Your task to perform on an android device: change timer sound Image 0: 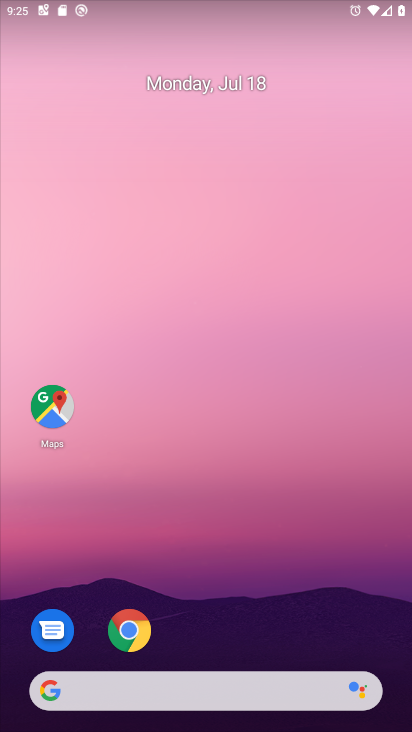
Step 0: drag from (204, 619) to (188, 183)
Your task to perform on an android device: change timer sound Image 1: 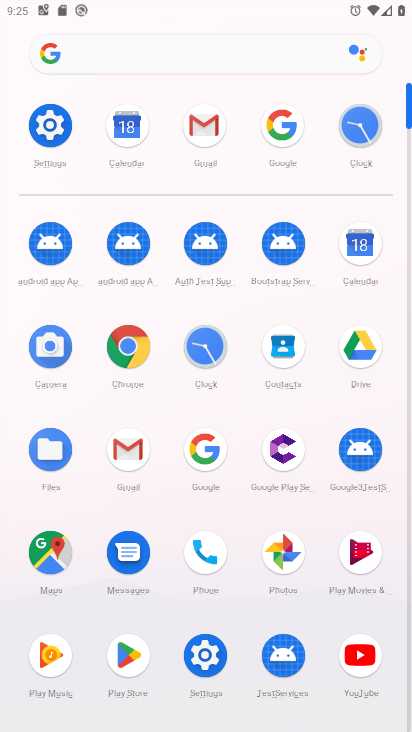
Step 1: click (344, 129)
Your task to perform on an android device: change timer sound Image 2: 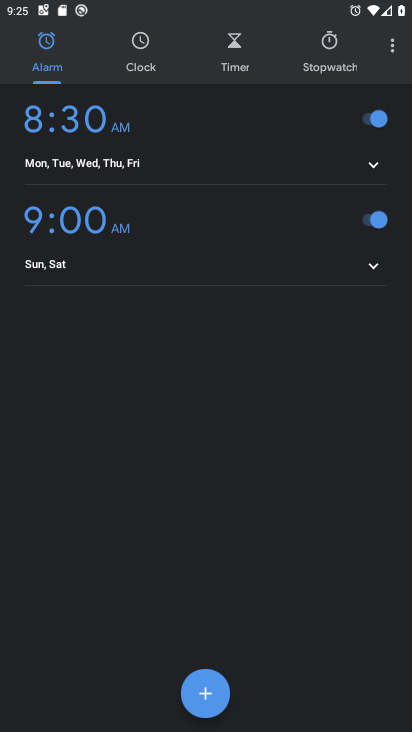
Step 2: click (387, 38)
Your task to perform on an android device: change timer sound Image 3: 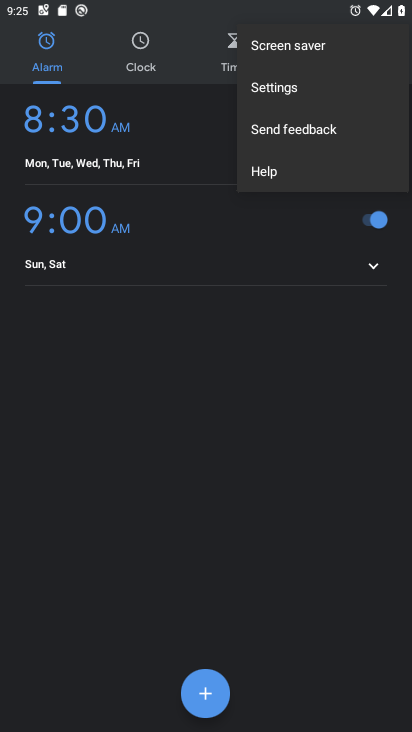
Step 3: click (287, 94)
Your task to perform on an android device: change timer sound Image 4: 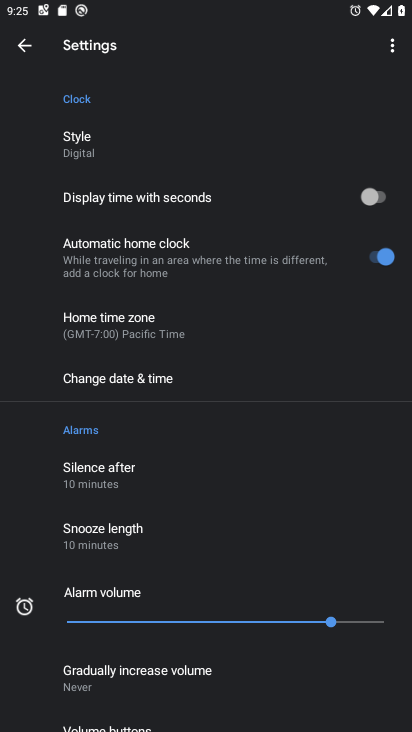
Step 4: drag from (178, 538) to (233, 197)
Your task to perform on an android device: change timer sound Image 5: 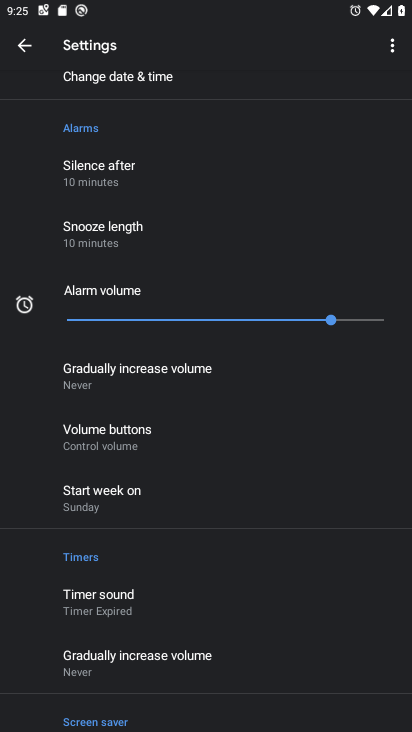
Step 5: click (149, 601)
Your task to perform on an android device: change timer sound Image 6: 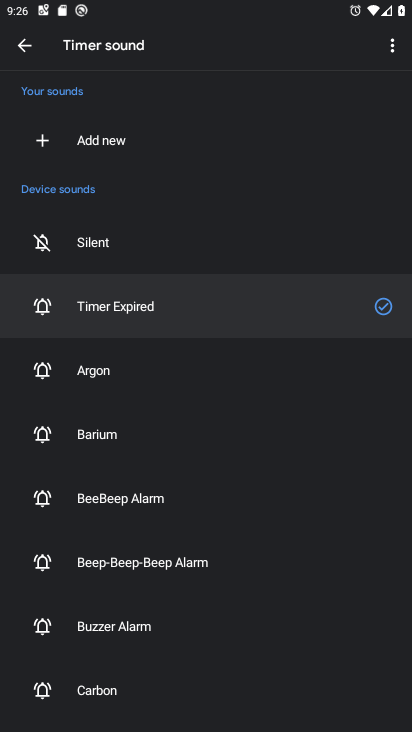
Step 6: click (181, 460)
Your task to perform on an android device: change timer sound Image 7: 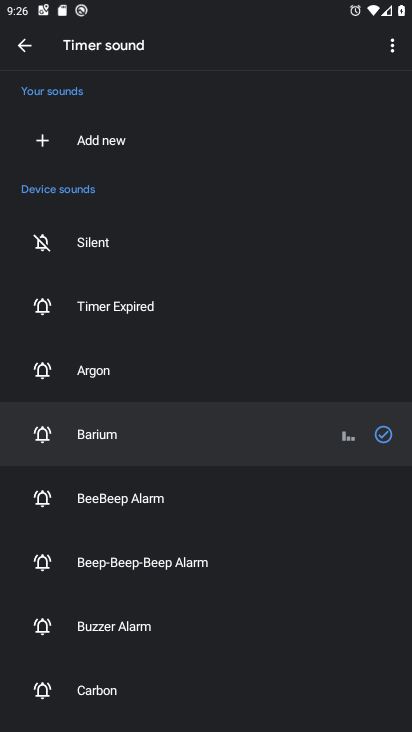
Step 7: task complete